Your task to perform on an android device: clear all cookies in the chrome app Image 0: 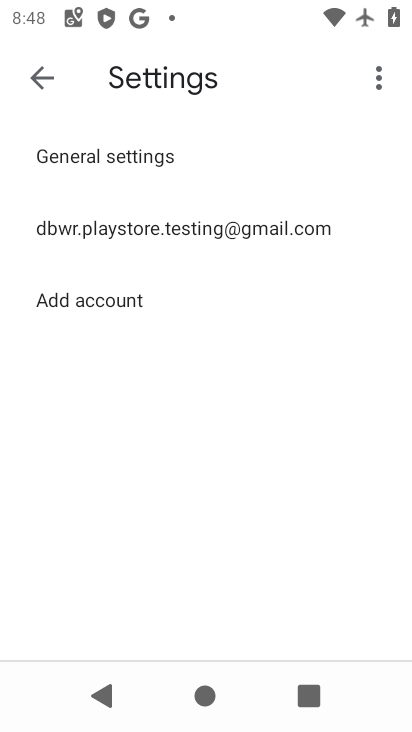
Step 0: press home button
Your task to perform on an android device: clear all cookies in the chrome app Image 1: 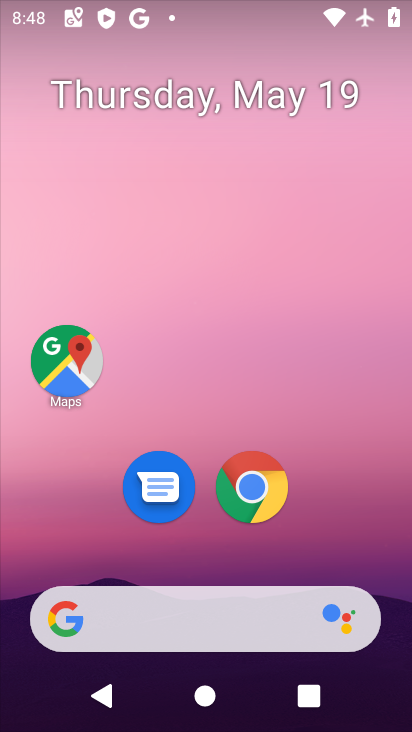
Step 1: click (252, 495)
Your task to perform on an android device: clear all cookies in the chrome app Image 2: 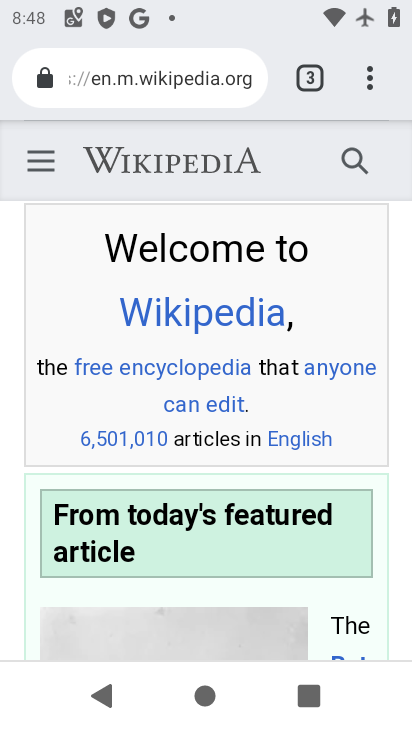
Step 2: drag from (363, 89) to (118, 436)
Your task to perform on an android device: clear all cookies in the chrome app Image 3: 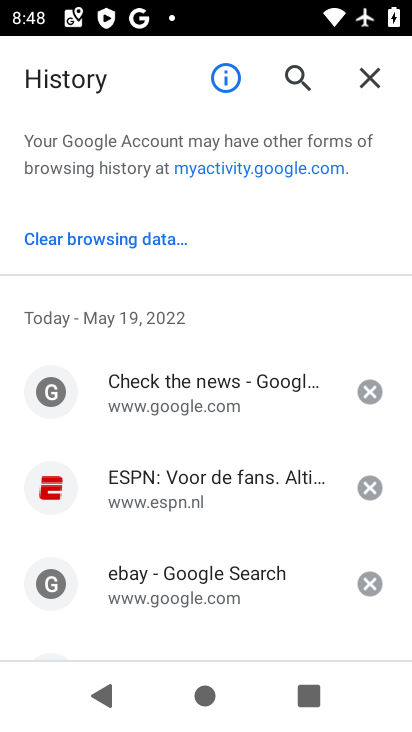
Step 3: click (99, 239)
Your task to perform on an android device: clear all cookies in the chrome app Image 4: 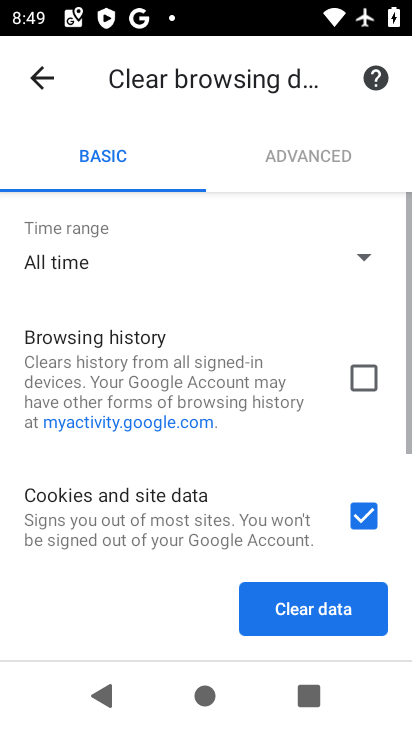
Step 4: click (276, 626)
Your task to perform on an android device: clear all cookies in the chrome app Image 5: 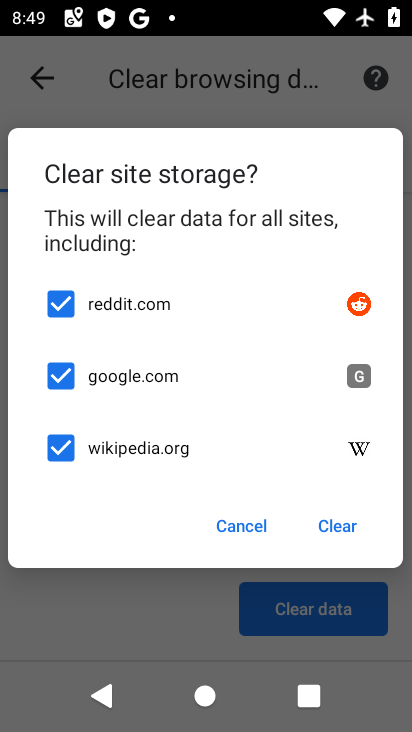
Step 5: click (317, 528)
Your task to perform on an android device: clear all cookies in the chrome app Image 6: 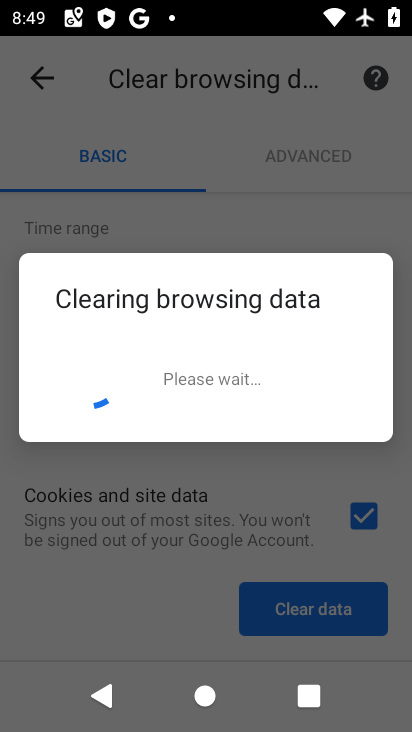
Step 6: task complete